Your task to perform on an android device: toggle wifi Image 0: 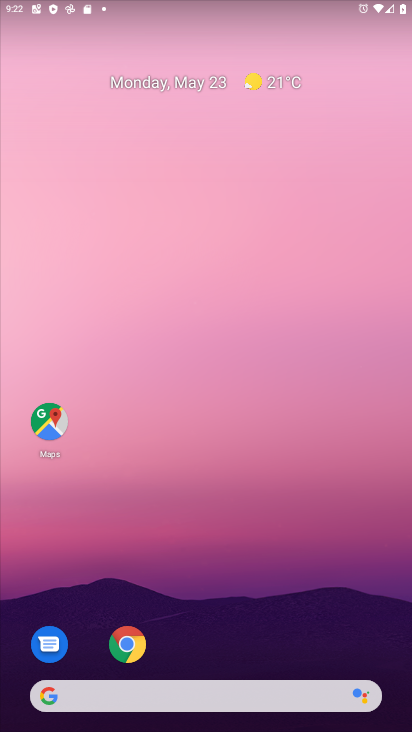
Step 0: drag from (61, 468) to (102, 145)
Your task to perform on an android device: toggle wifi Image 1: 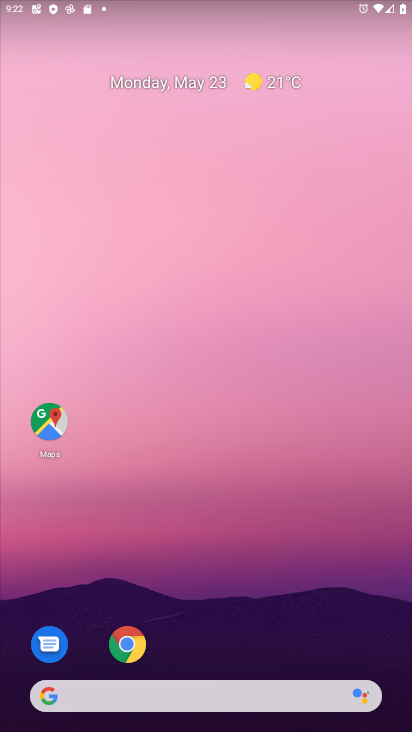
Step 1: drag from (235, 724) to (239, 80)
Your task to perform on an android device: toggle wifi Image 2: 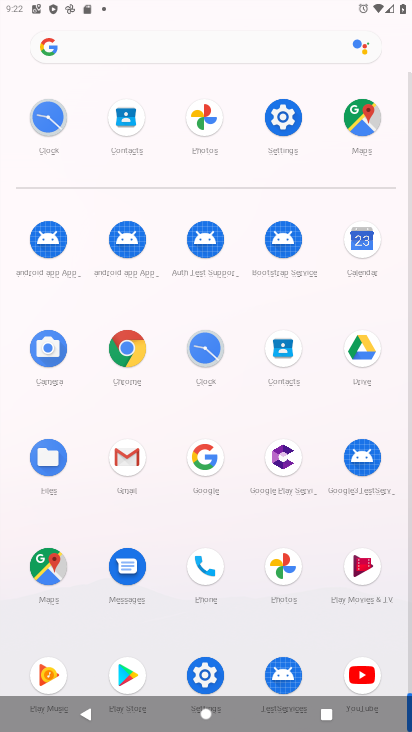
Step 2: click (288, 115)
Your task to perform on an android device: toggle wifi Image 3: 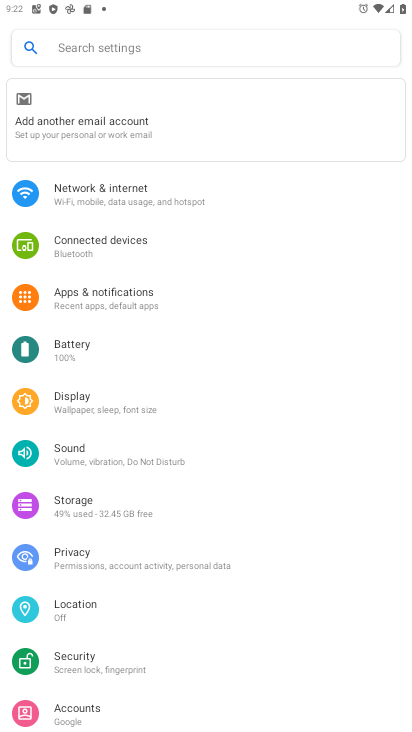
Step 3: click (203, 193)
Your task to perform on an android device: toggle wifi Image 4: 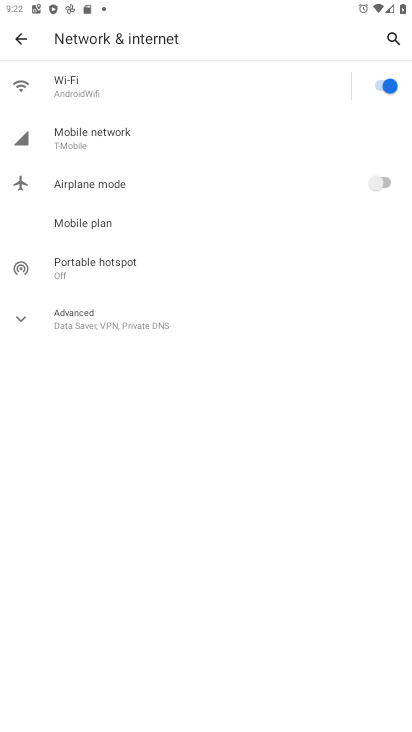
Step 4: click (393, 79)
Your task to perform on an android device: toggle wifi Image 5: 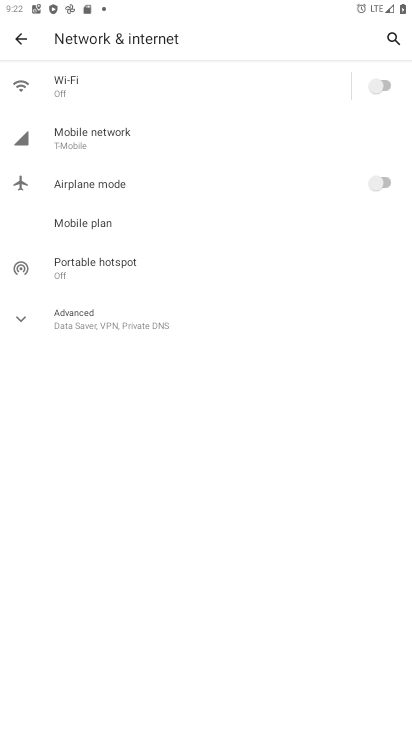
Step 5: task complete